Your task to perform on an android device: check battery use Image 0: 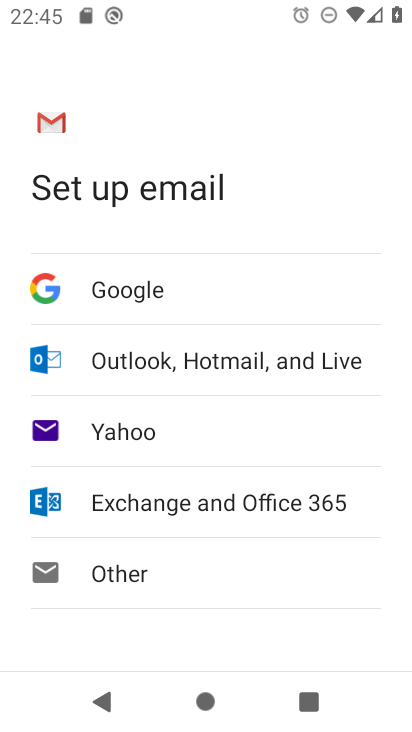
Step 0: press home button
Your task to perform on an android device: check battery use Image 1: 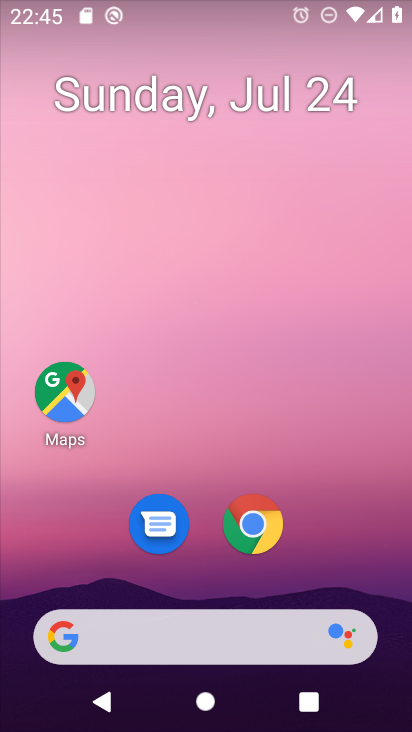
Step 1: drag from (193, 648) to (315, 70)
Your task to perform on an android device: check battery use Image 2: 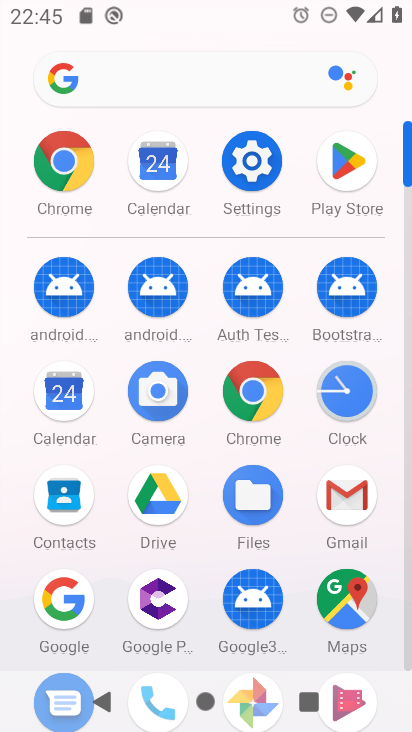
Step 2: click (254, 158)
Your task to perform on an android device: check battery use Image 3: 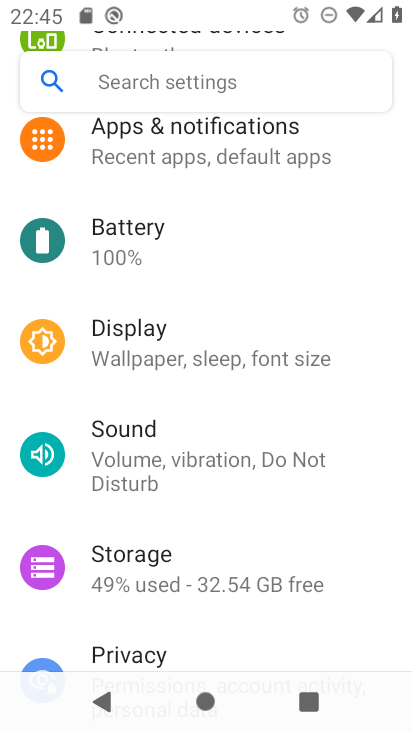
Step 3: click (132, 246)
Your task to perform on an android device: check battery use Image 4: 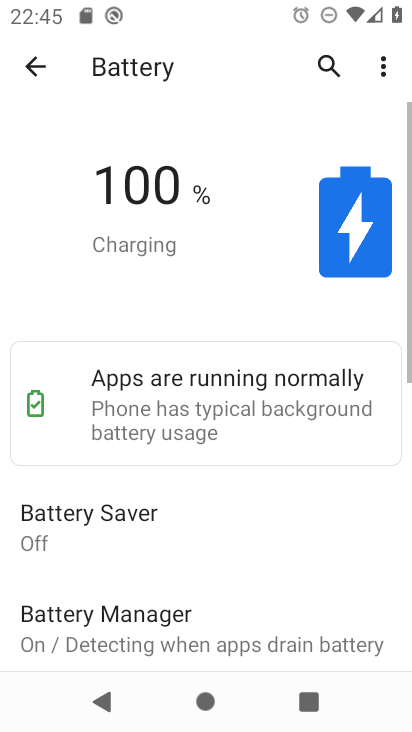
Step 4: click (384, 71)
Your task to perform on an android device: check battery use Image 5: 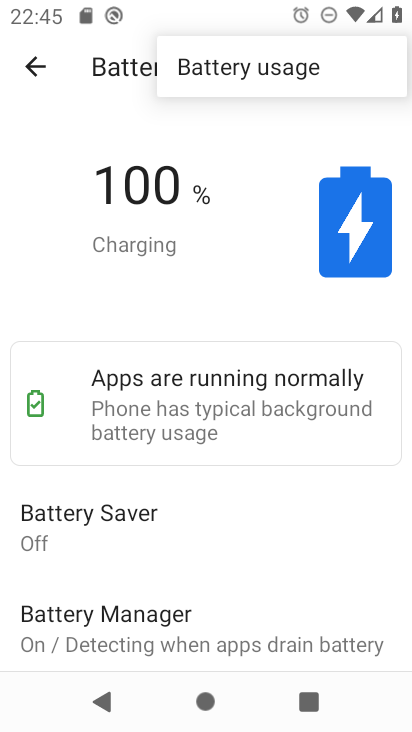
Step 5: click (313, 65)
Your task to perform on an android device: check battery use Image 6: 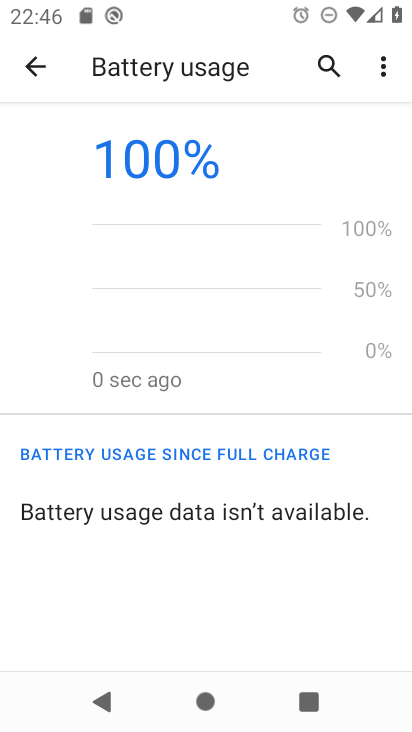
Step 6: task complete